Your task to perform on an android device: Open settings Image 0: 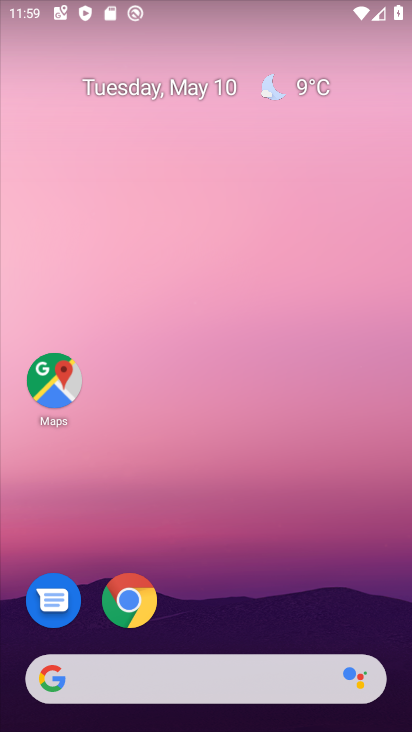
Step 0: drag from (248, 720) to (271, 13)
Your task to perform on an android device: Open settings Image 1: 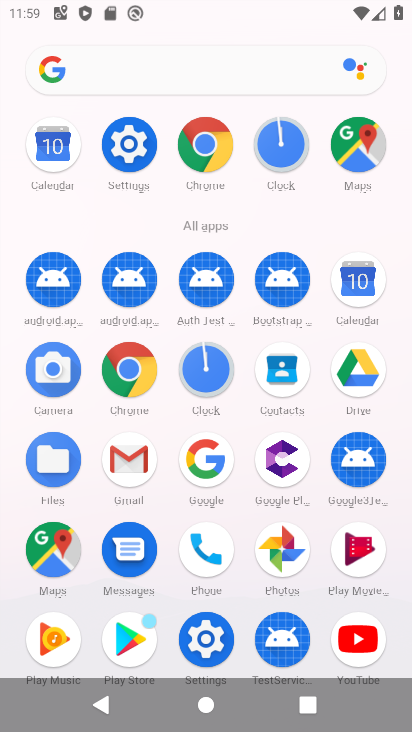
Step 1: click (131, 129)
Your task to perform on an android device: Open settings Image 2: 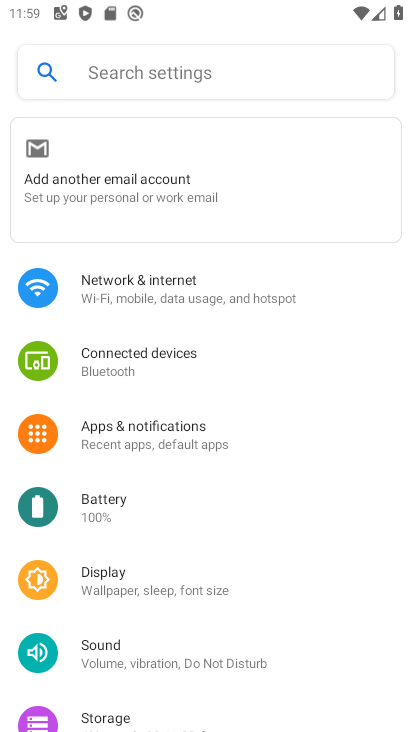
Step 2: task complete